Your task to perform on an android device: delete a single message in the gmail app Image 0: 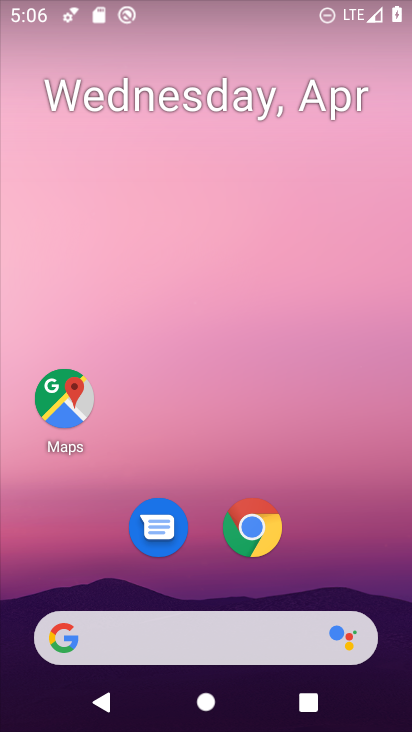
Step 0: drag from (370, 570) to (362, 10)
Your task to perform on an android device: delete a single message in the gmail app Image 1: 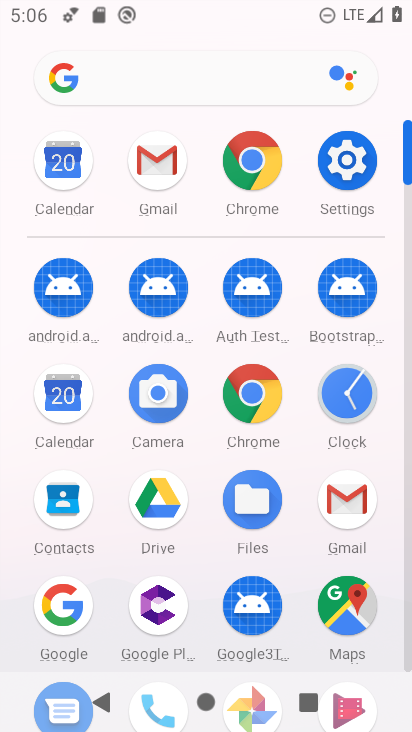
Step 1: click (163, 164)
Your task to perform on an android device: delete a single message in the gmail app Image 2: 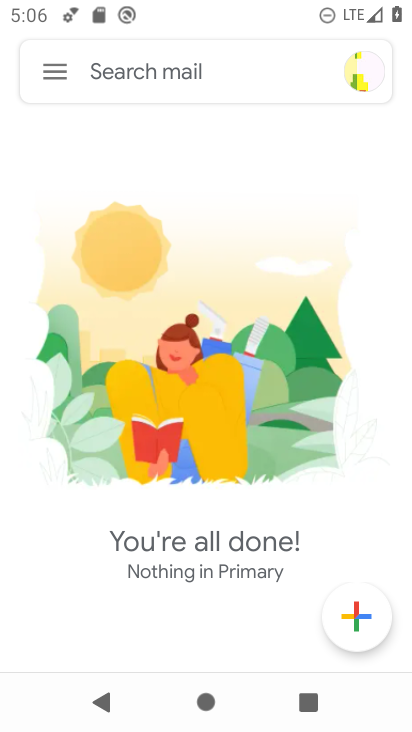
Step 2: click (51, 73)
Your task to perform on an android device: delete a single message in the gmail app Image 3: 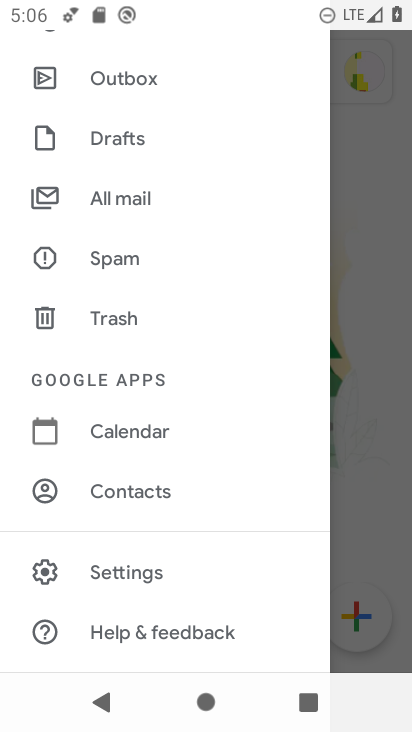
Step 3: click (97, 202)
Your task to perform on an android device: delete a single message in the gmail app Image 4: 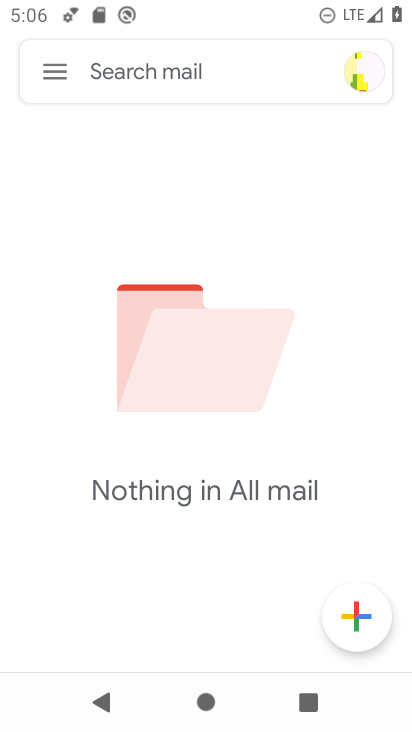
Step 4: task complete